Your task to perform on an android device: turn notification dots on Image 0: 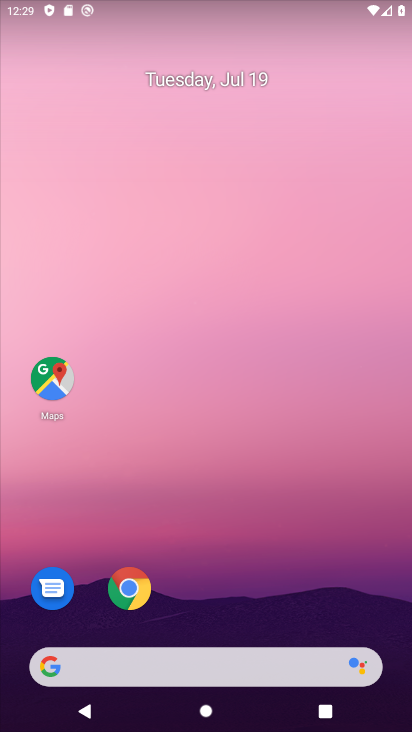
Step 0: drag from (289, 582) to (278, 26)
Your task to perform on an android device: turn notification dots on Image 1: 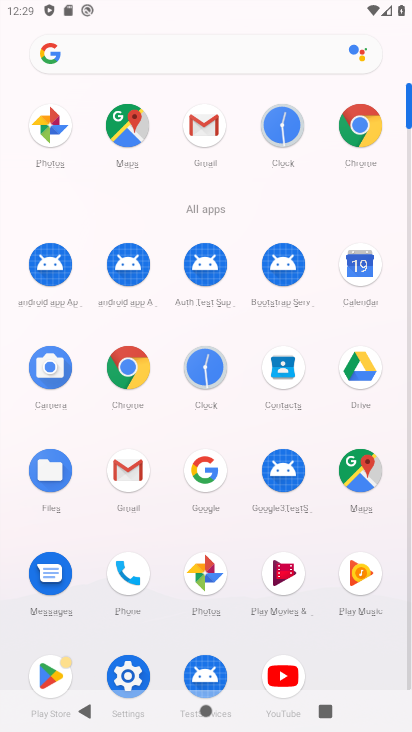
Step 1: click (136, 667)
Your task to perform on an android device: turn notification dots on Image 2: 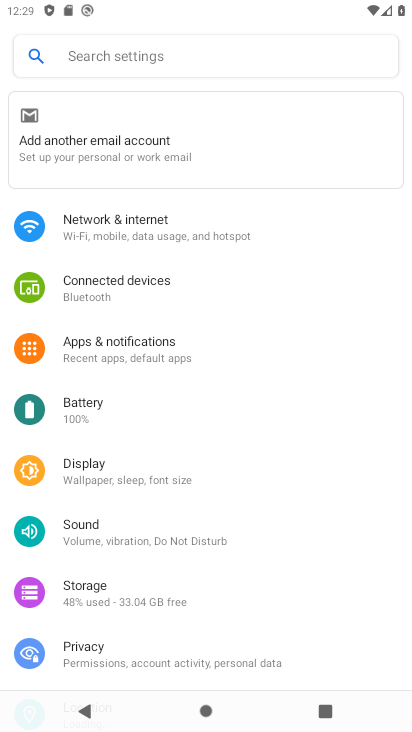
Step 2: click (144, 357)
Your task to perform on an android device: turn notification dots on Image 3: 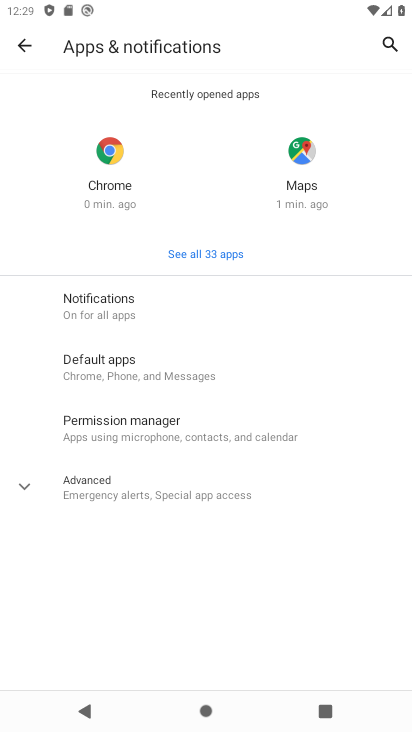
Step 3: click (95, 303)
Your task to perform on an android device: turn notification dots on Image 4: 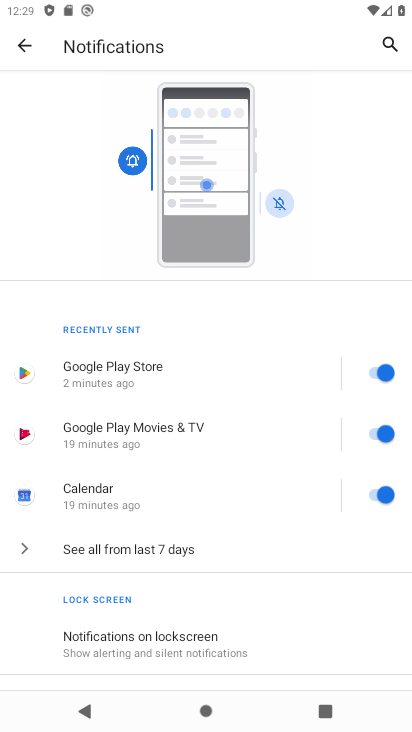
Step 4: drag from (198, 419) to (228, 112)
Your task to perform on an android device: turn notification dots on Image 5: 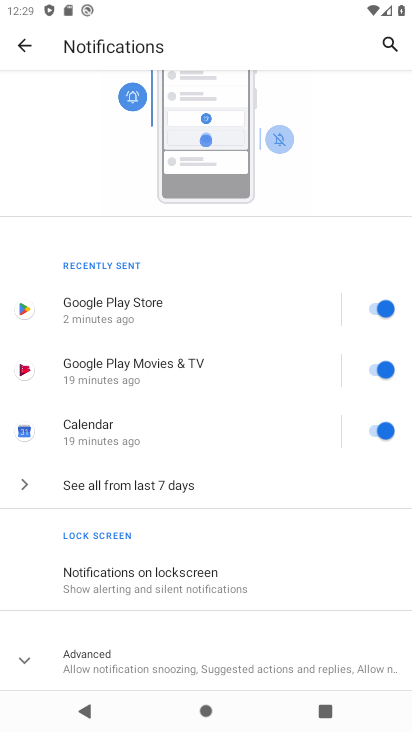
Step 5: click (138, 669)
Your task to perform on an android device: turn notification dots on Image 6: 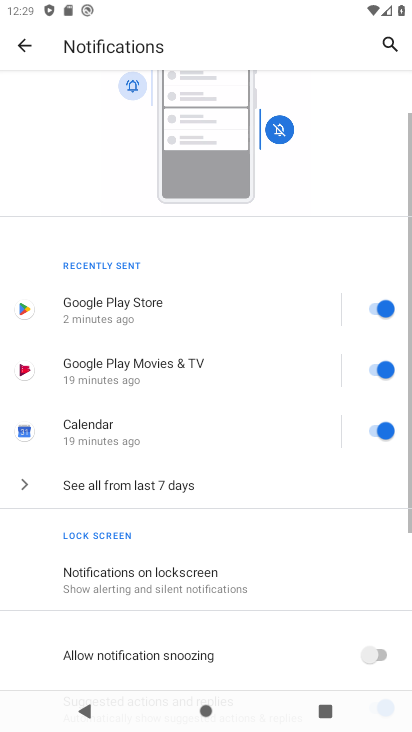
Step 6: task complete